Your task to perform on an android device: Go to ESPN.com Image 0: 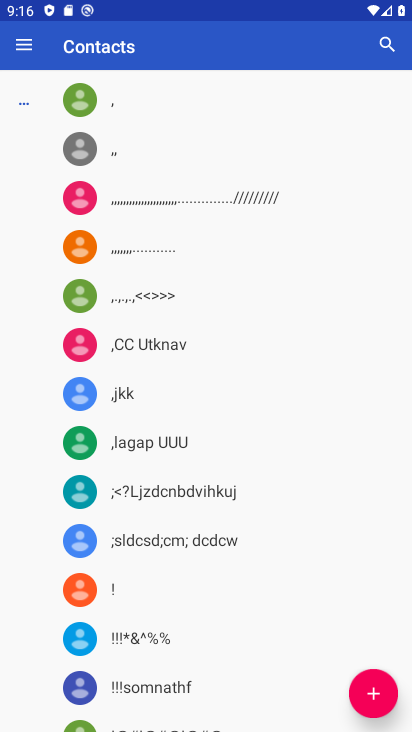
Step 0: press home button
Your task to perform on an android device: Go to ESPN.com Image 1: 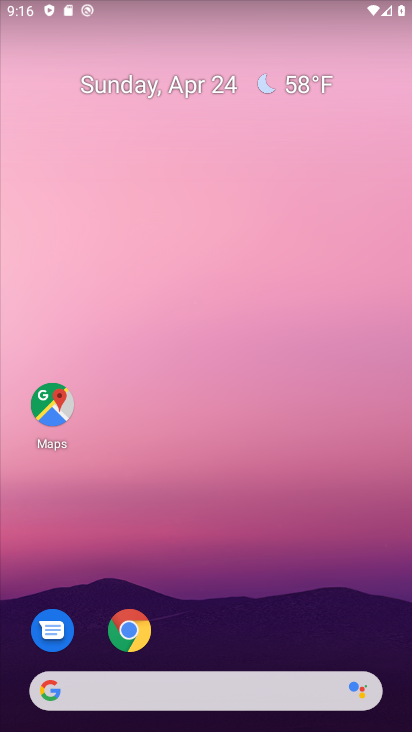
Step 1: drag from (276, 529) to (349, 49)
Your task to perform on an android device: Go to ESPN.com Image 2: 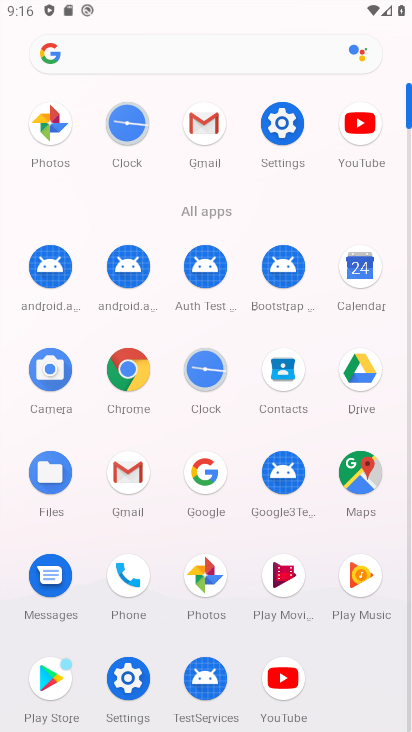
Step 2: click (136, 382)
Your task to perform on an android device: Go to ESPN.com Image 3: 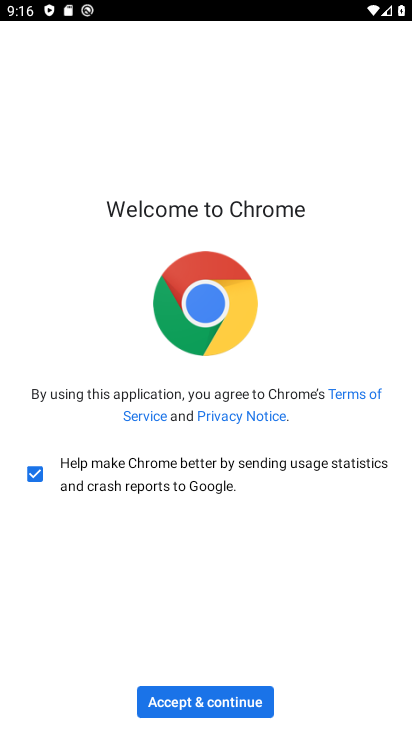
Step 3: click (221, 696)
Your task to perform on an android device: Go to ESPN.com Image 4: 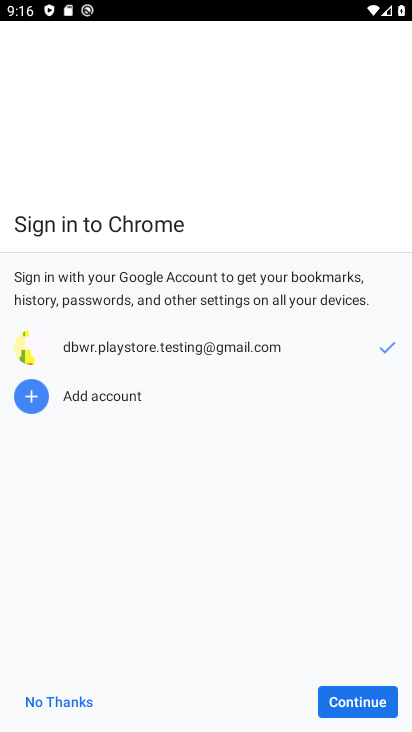
Step 4: click (353, 714)
Your task to perform on an android device: Go to ESPN.com Image 5: 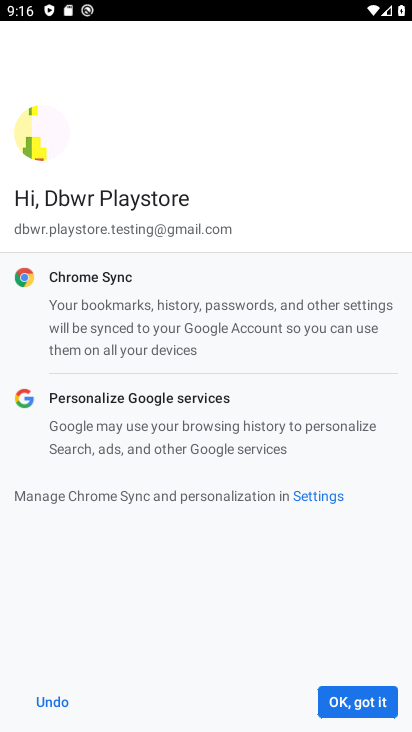
Step 5: click (351, 717)
Your task to perform on an android device: Go to ESPN.com Image 6: 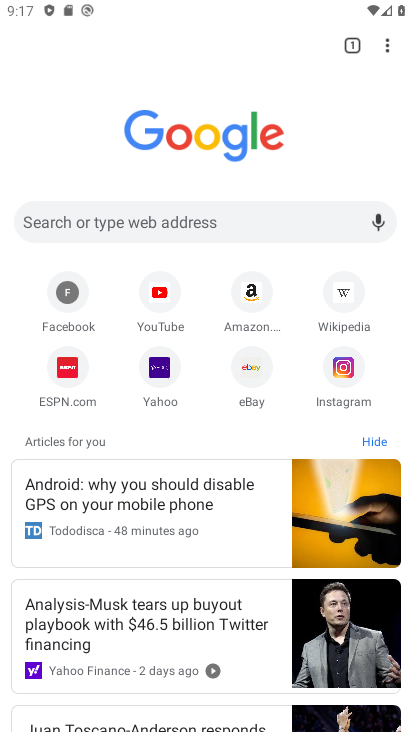
Step 6: click (82, 383)
Your task to perform on an android device: Go to ESPN.com Image 7: 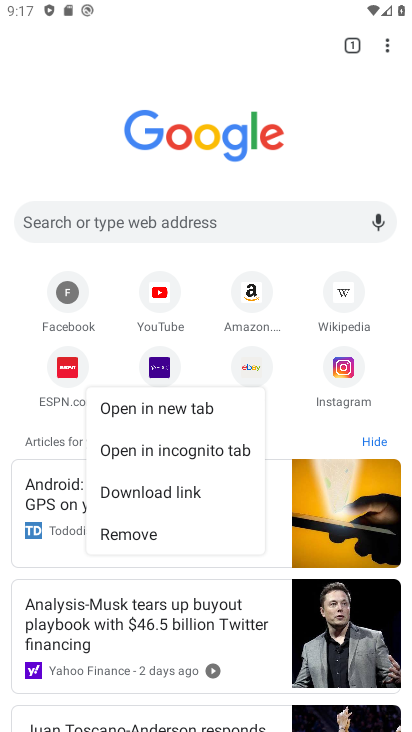
Step 7: click (80, 363)
Your task to perform on an android device: Go to ESPN.com Image 8: 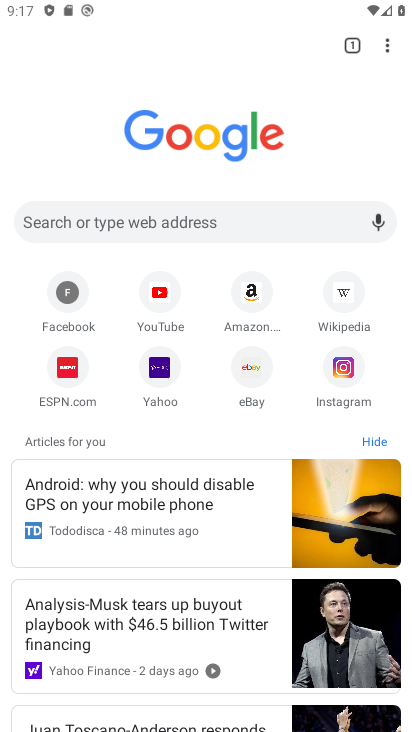
Step 8: click (58, 381)
Your task to perform on an android device: Go to ESPN.com Image 9: 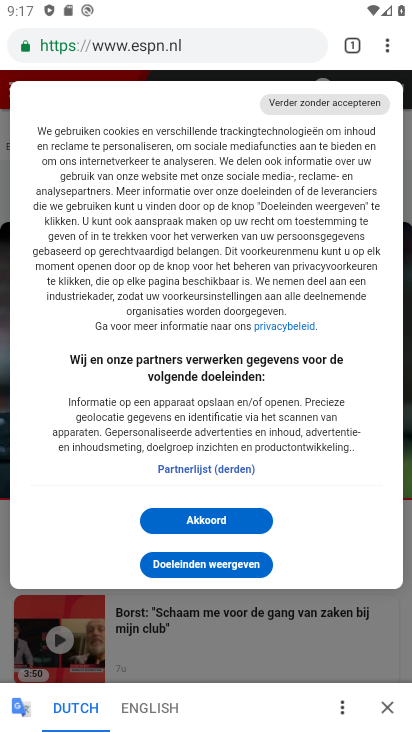
Step 9: click (242, 514)
Your task to perform on an android device: Go to ESPN.com Image 10: 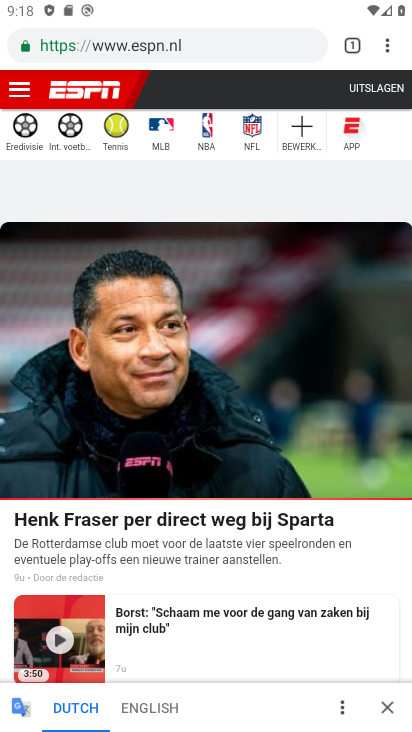
Step 10: task complete